Your task to perform on an android device: Open Reddit.com Image 0: 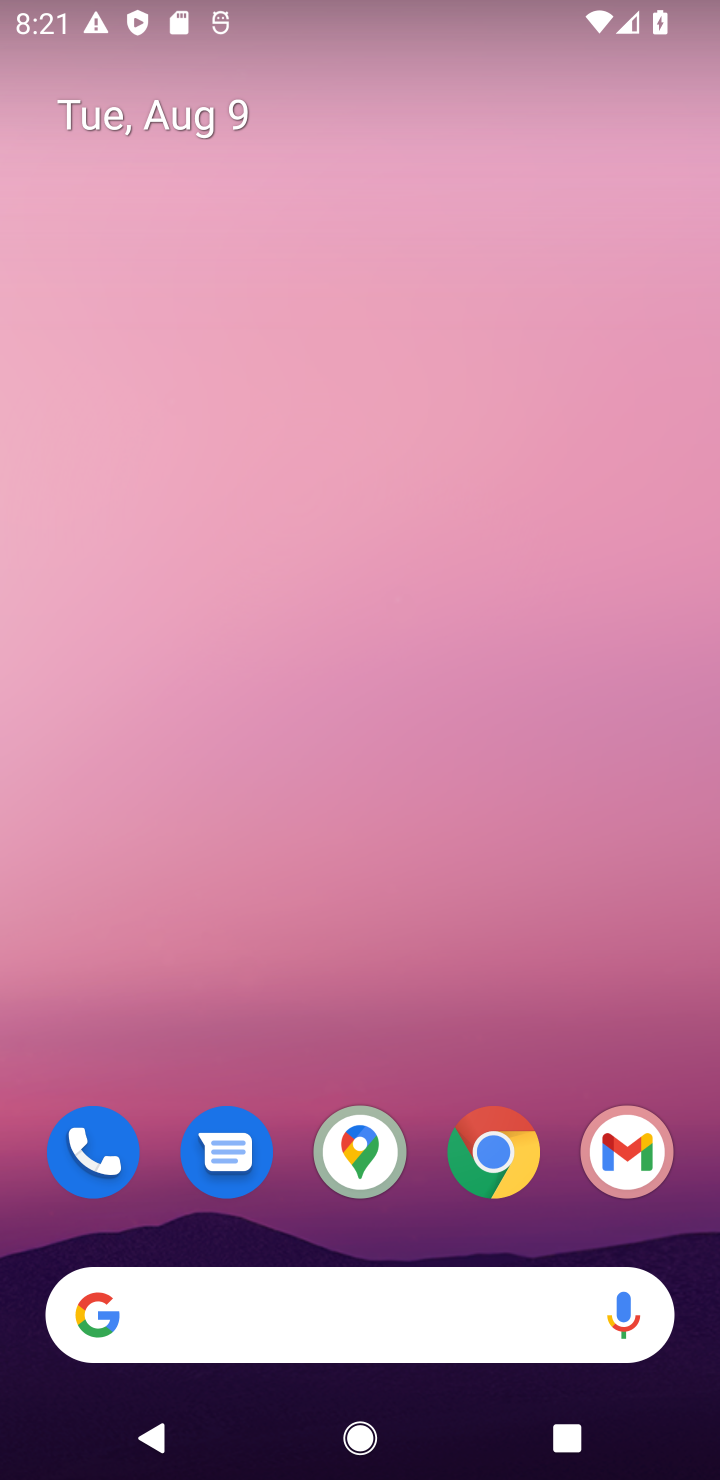
Step 0: click (314, 1309)
Your task to perform on an android device: Open Reddit.com Image 1: 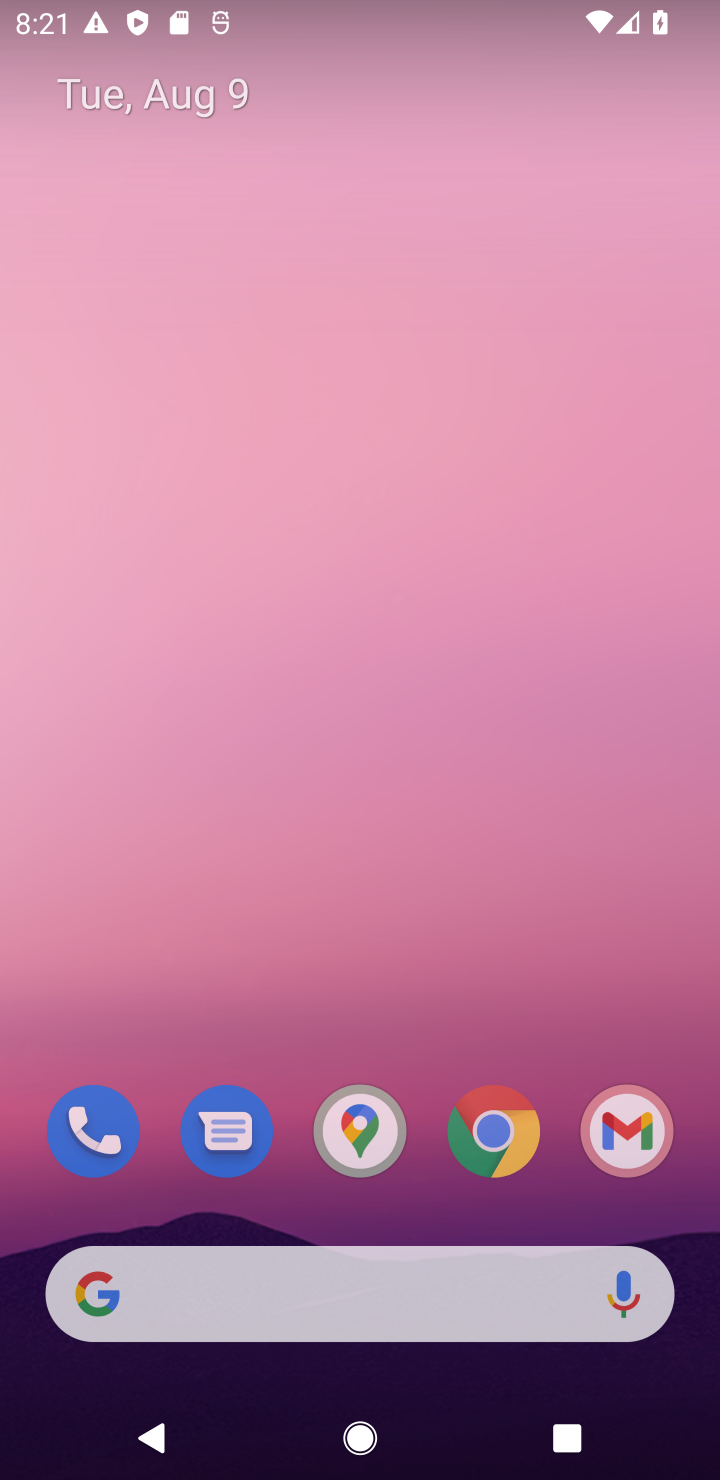
Step 1: click (314, 1309)
Your task to perform on an android device: Open Reddit.com Image 2: 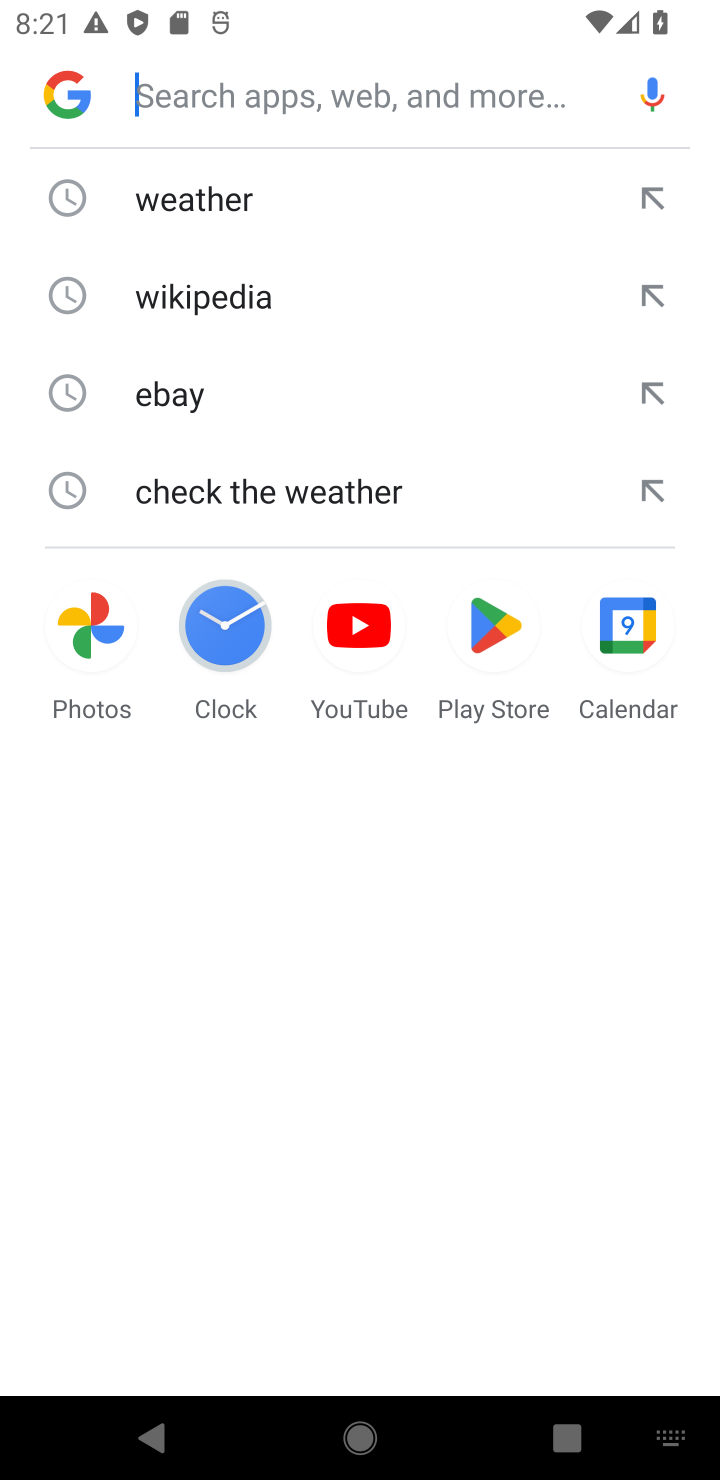
Step 2: type "reddit"
Your task to perform on an android device: Open Reddit.com Image 3: 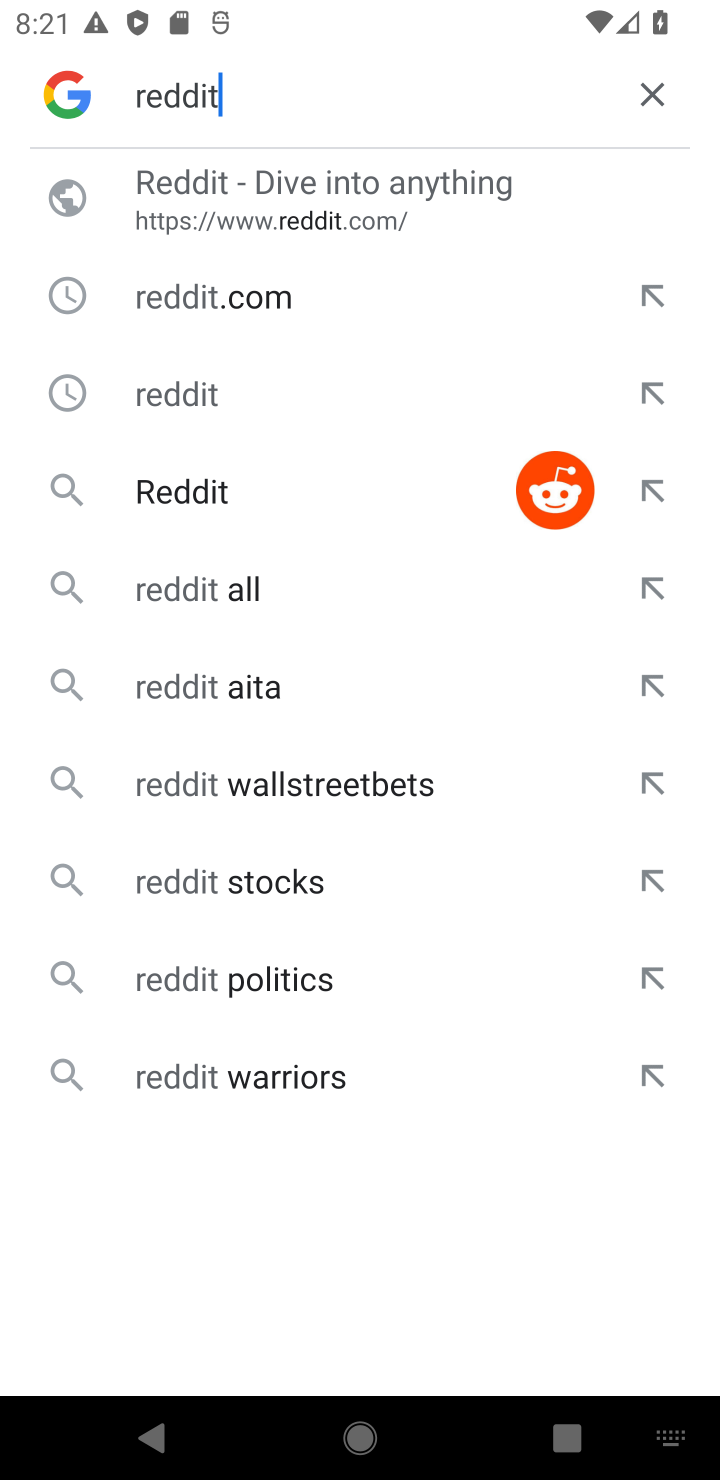
Step 3: click (368, 179)
Your task to perform on an android device: Open Reddit.com Image 4: 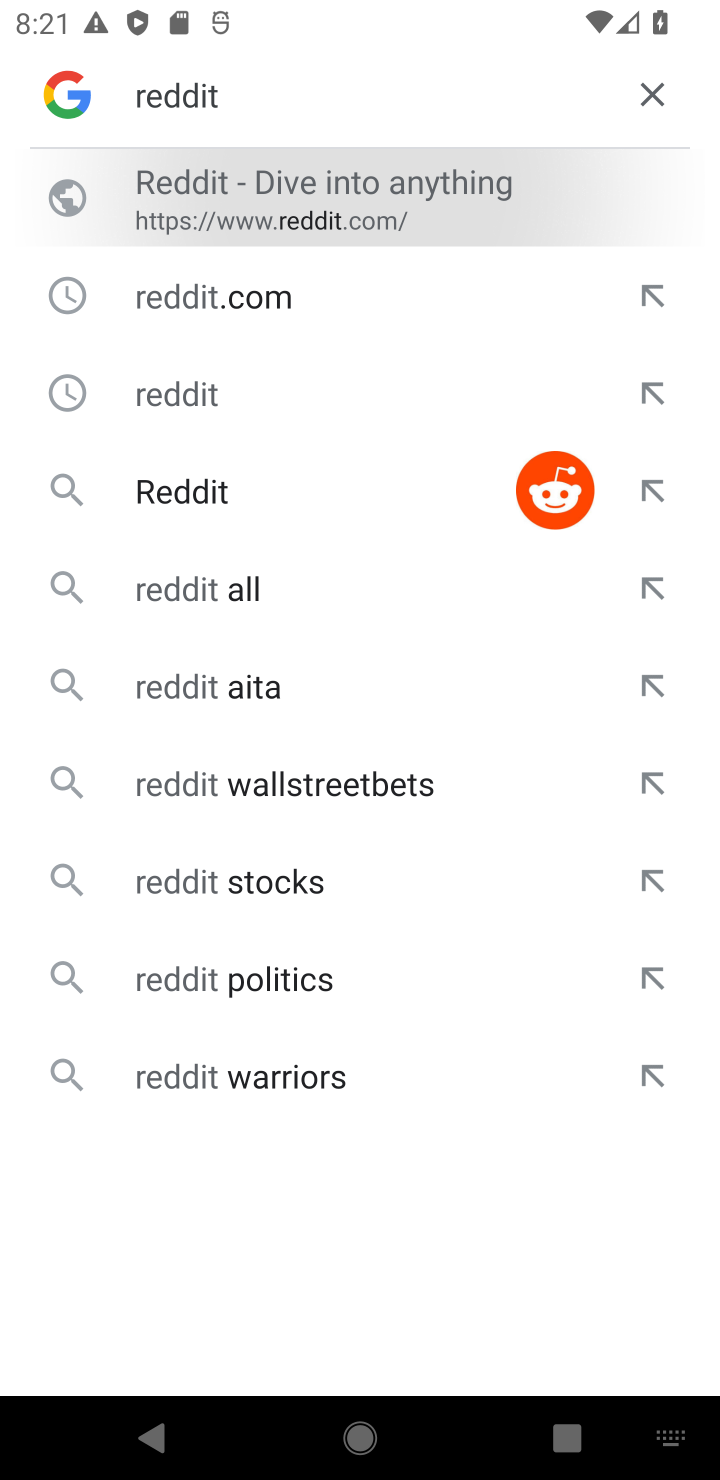
Step 4: click (368, 179)
Your task to perform on an android device: Open Reddit.com Image 5: 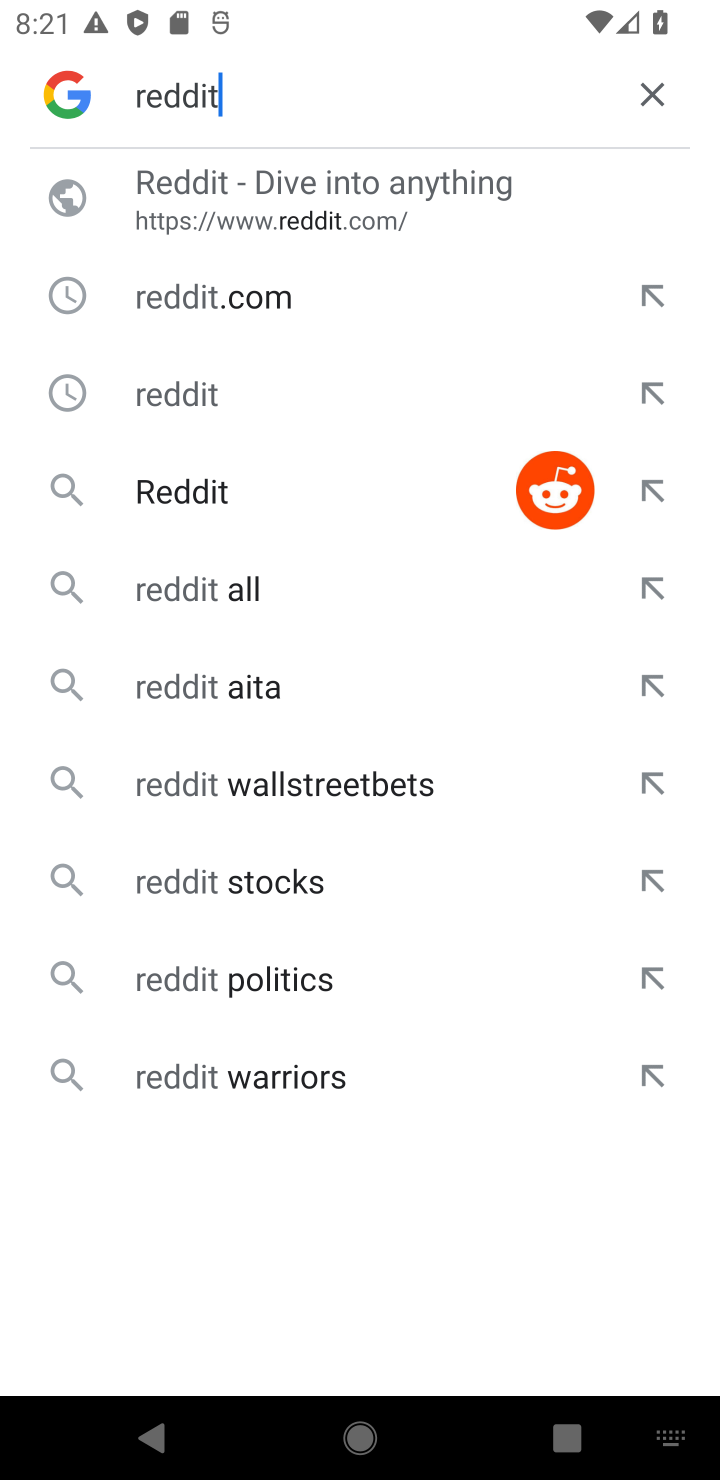
Step 5: click (368, 179)
Your task to perform on an android device: Open Reddit.com Image 6: 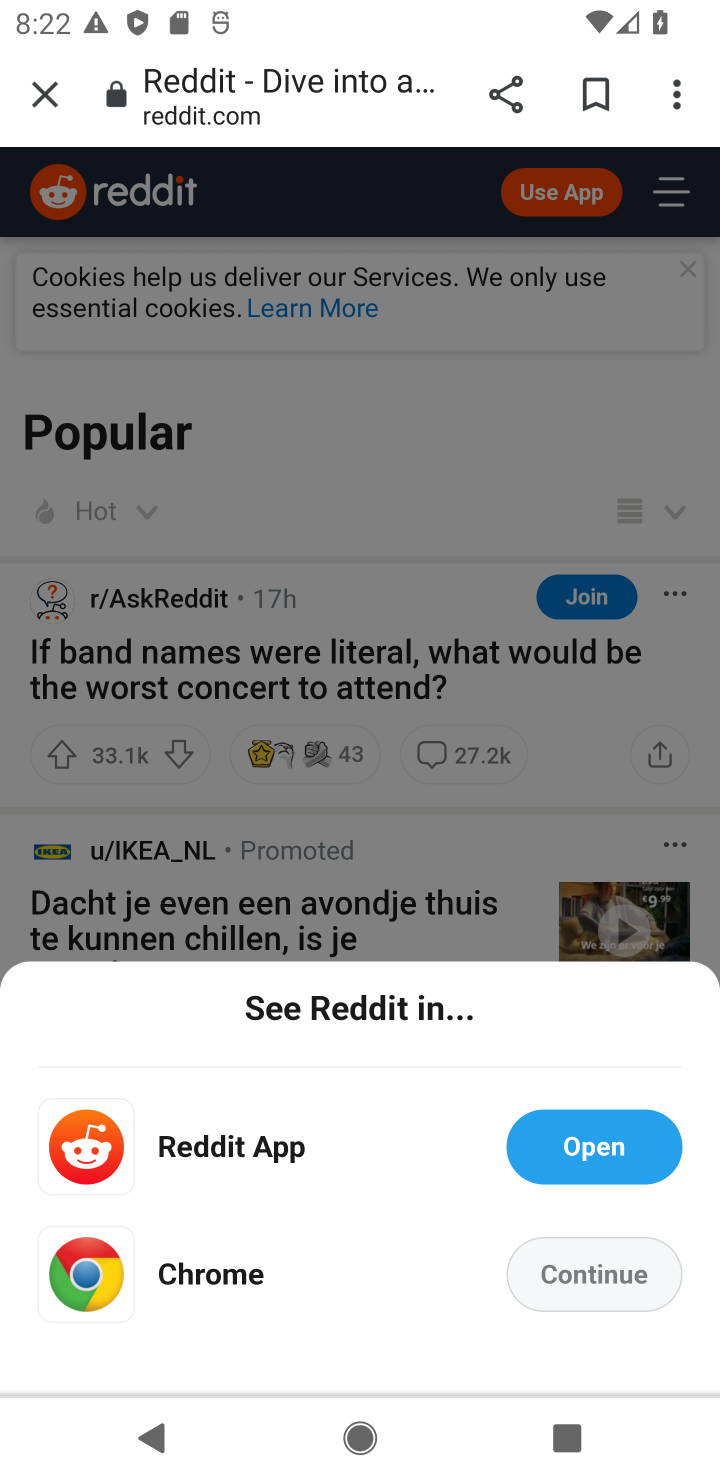
Step 6: task complete